Your task to perform on an android device: What's the weather going to be tomorrow? Image 0: 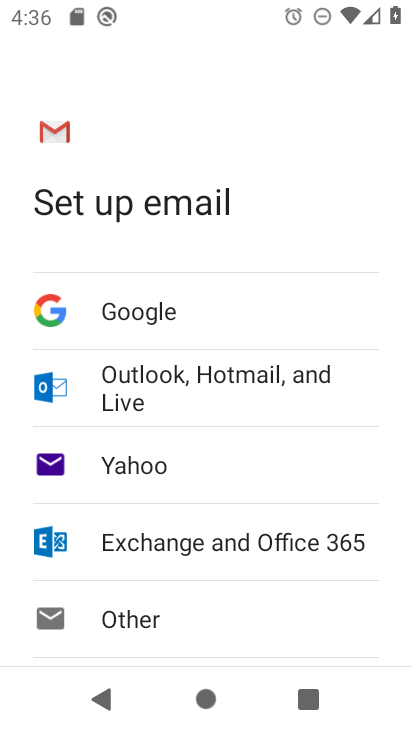
Step 0: press home button
Your task to perform on an android device: What's the weather going to be tomorrow? Image 1: 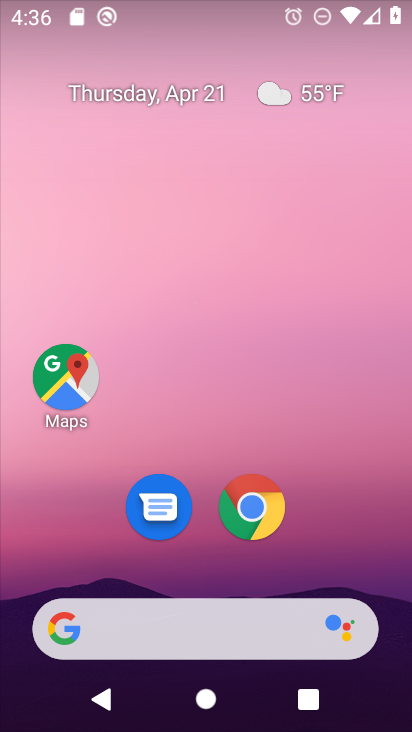
Step 1: click (282, 87)
Your task to perform on an android device: What's the weather going to be tomorrow? Image 2: 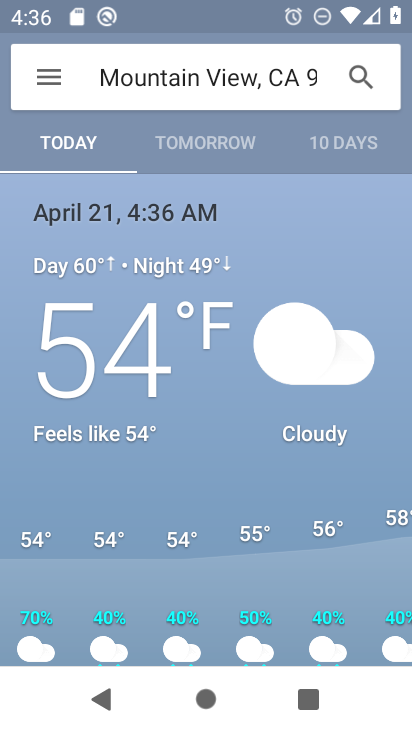
Step 2: click (197, 156)
Your task to perform on an android device: What's the weather going to be tomorrow? Image 3: 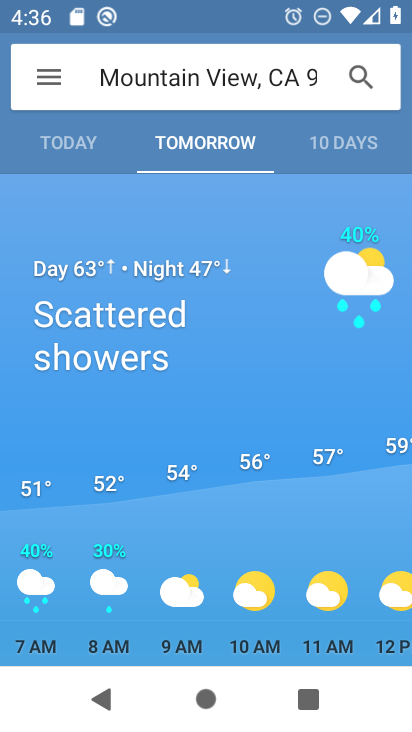
Step 3: task complete